Your task to perform on an android device: manage bookmarks in the chrome app Image 0: 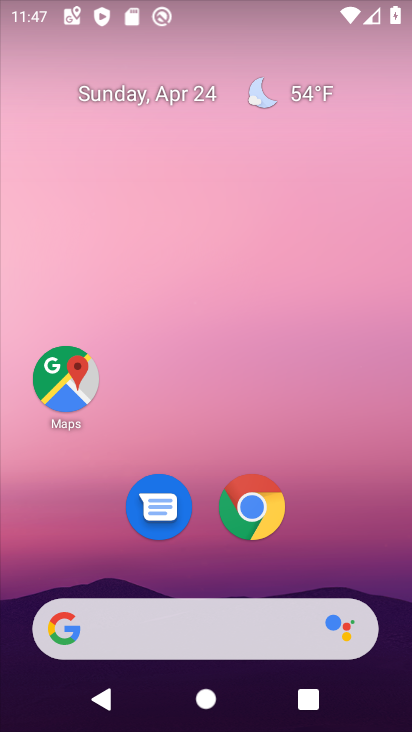
Step 0: drag from (305, 348) to (256, 17)
Your task to perform on an android device: manage bookmarks in the chrome app Image 1: 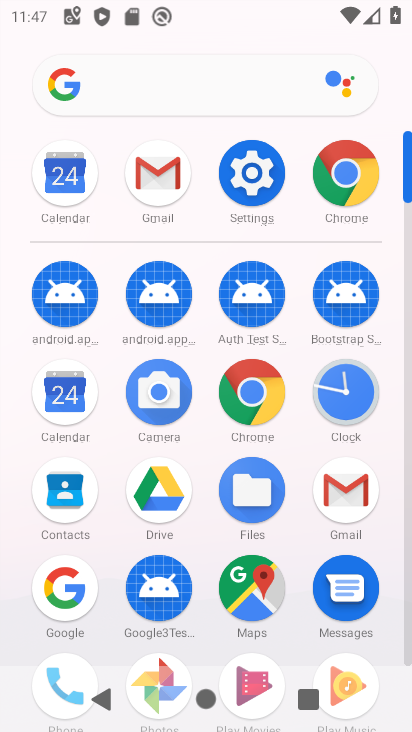
Step 1: drag from (16, 589) to (14, 322)
Your task to perform on an android device: manage bookmarks in the chrome app Image 2: 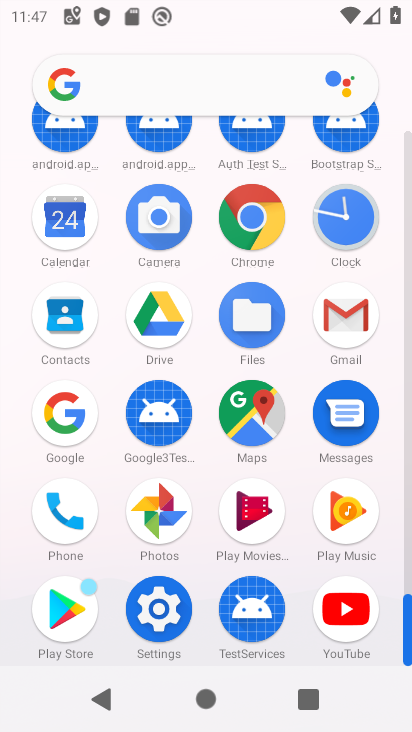
Step 2: click (250, 223)
Your task to perform on an android device: manage bookmarks in the chrome app Image 3: 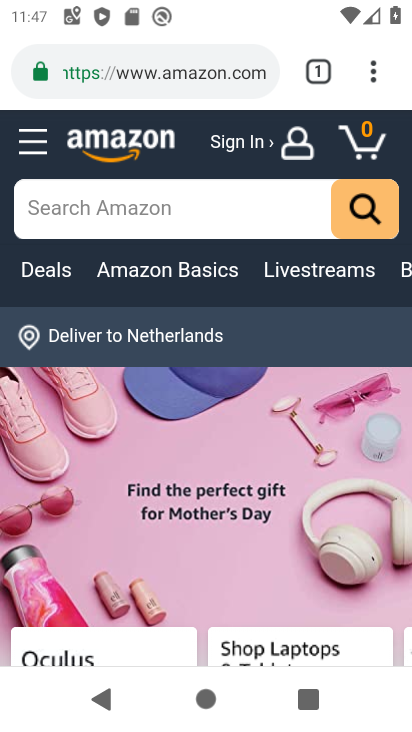
Step 3: drag from (375, 70) to (161, 275)
Your task to perform on an android device: manage bookmarks in the chrome app Image 4: 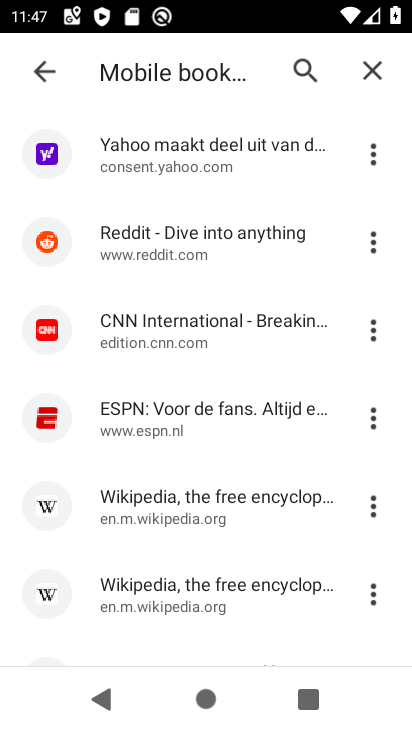
Step 4: click (375, 244)
Your task to perform on an android device: manage bookmarks in the chrome app Image 5: 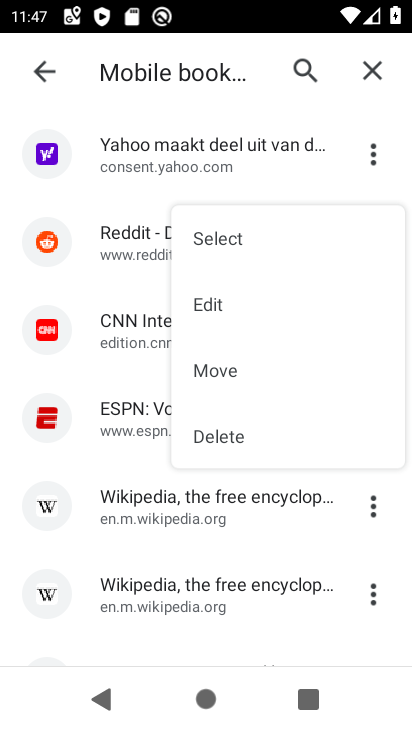
Step 5: click (217, 435)
Your task to perform on an android device: manage bookmarks in the chrome app Image 6: 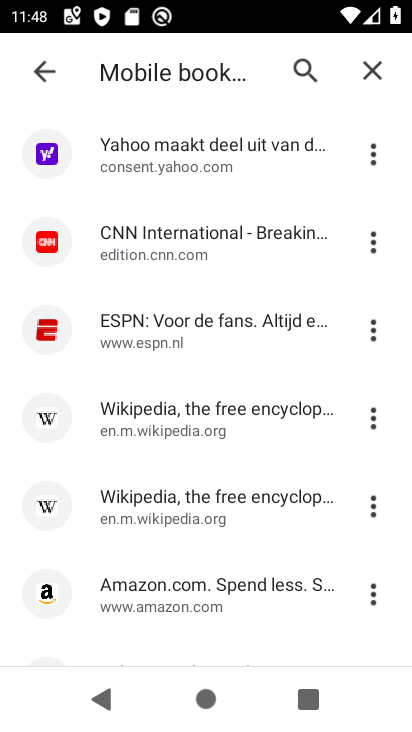
Step 6: click (370, 149)
Your task to perform on an android device: manage bookmarks in the chrome app Image 7: 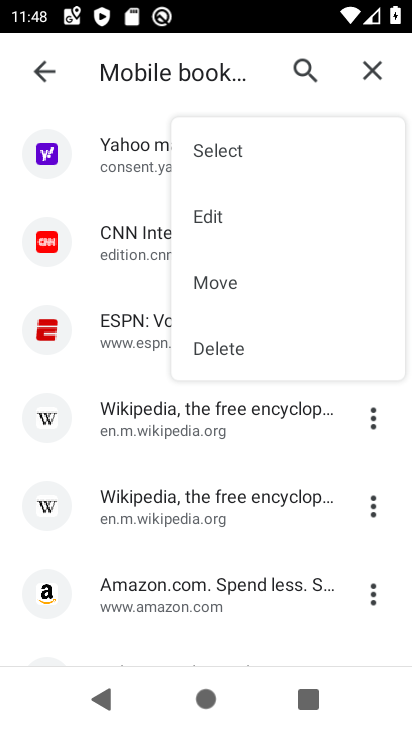
Step 7: click (227, 342)
Your task to perform on an android device: manage bookmarks in the chrome app Image 8: 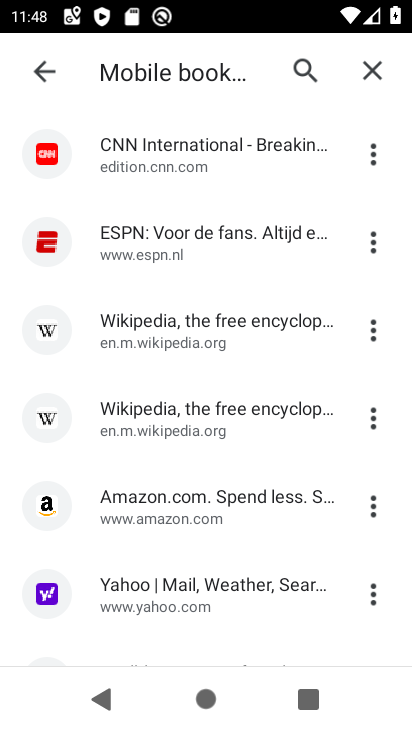
Step 8: task complete